Your task to perform on an android device: See recent photos Image 0: 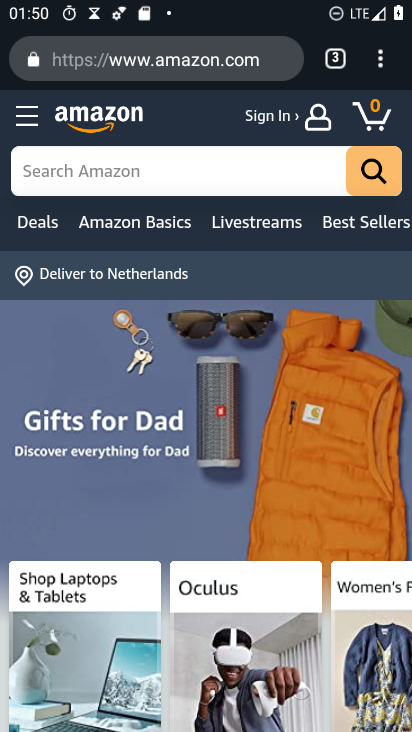
Step 0: press home button
Your task to perform on an android device: See recent photos Image 1: 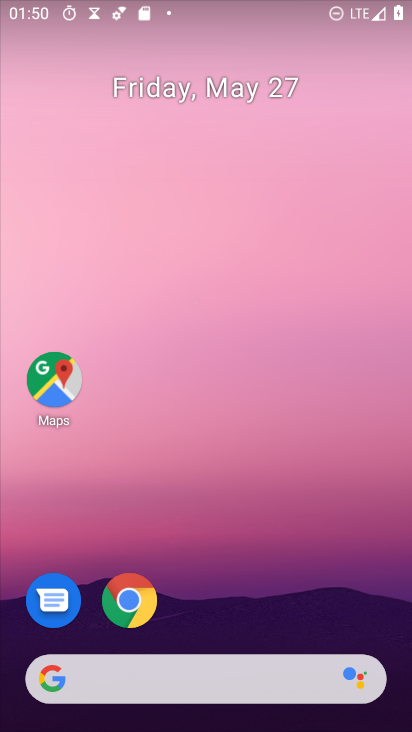
Step 1: drag from (225, 494) to (225, 227)
Your task to perform on an android device: See recent photos Image 2: 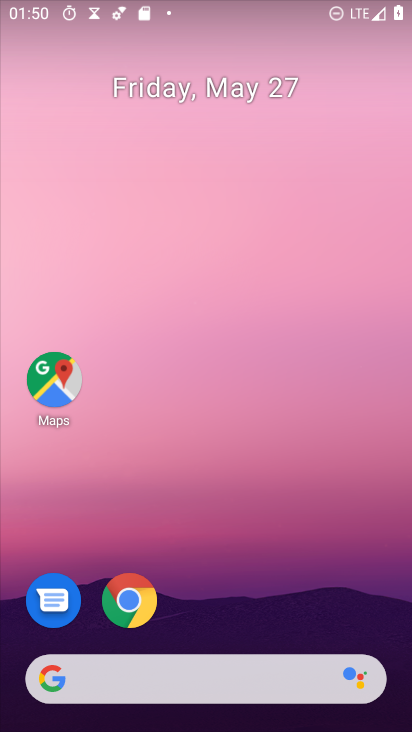
Step 2: drag from (236, 525) to (230, 241)
Your task to perform on an android device: See recent photos Image 3: 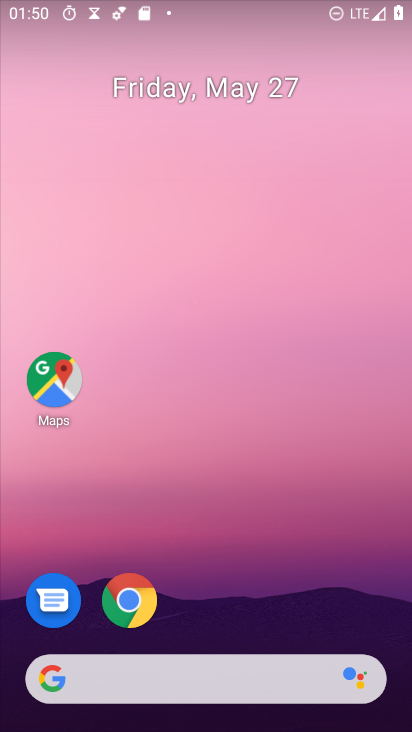
Step 3: drag from (294, 586) to (276, 124)
Your task to perform on an android device: See recent photos Image 4: 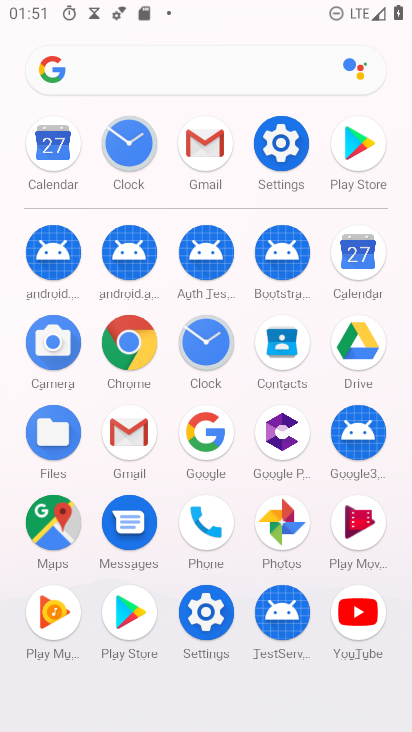
Step 4: click (291, 512)
Your task to perform on an android device: See recent photos Image 5: 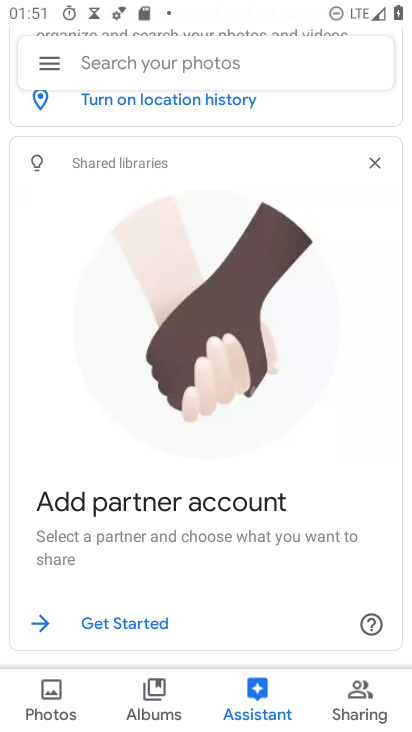
Step 5: click (55, 691)
Your task to perform on an android device: See recent photos Image 6: 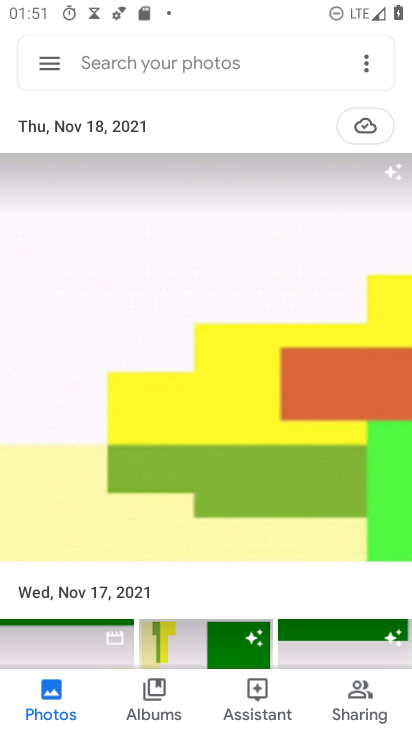
Step 6: task complete